Your task to perform on an android device: Show me recent news Image 0: 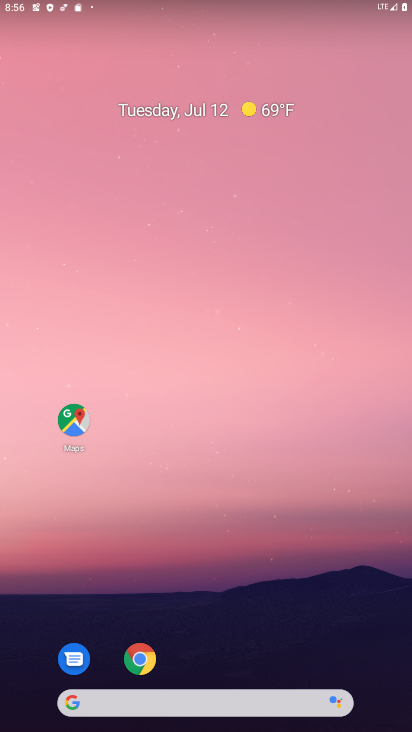
Step 0: click (3, 243)
Your task to perform on an android device: Show me recent news Image 1: 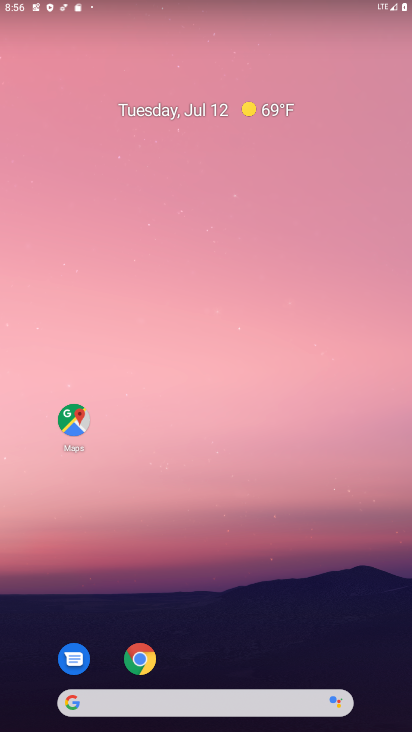
Step 1: click (1, 229)
Your task to perform on an android device: Show me recent news Image 2: 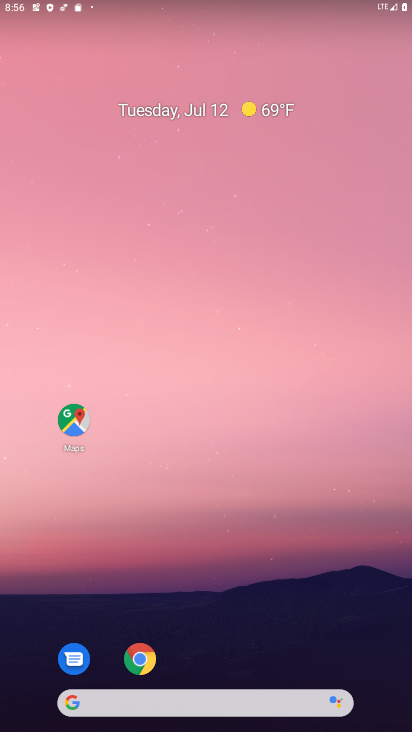
Step 2: drag from (6, 288) to (73, 288)
Your task to perform on an android device: Show me recent news Image 3: 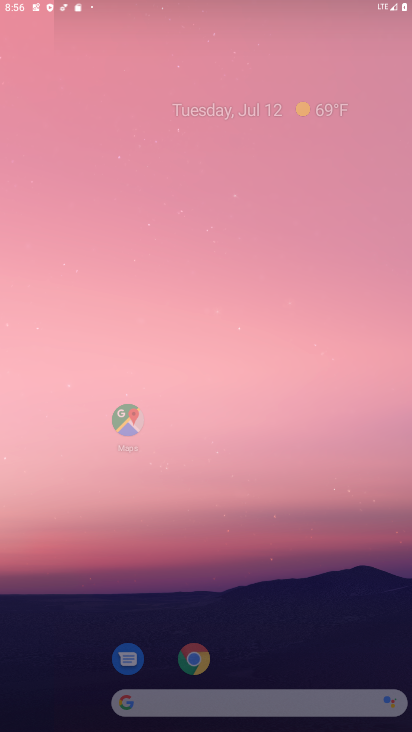
Step 3: click (355, 292)
Your task to perform on an android device: Show me recent news Image 4: 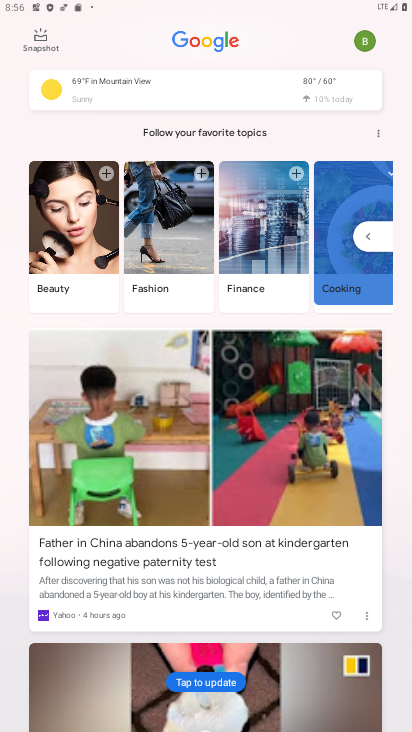
Step 4: task complete